Your task to perform on an android device: Go to location settings Image 0: 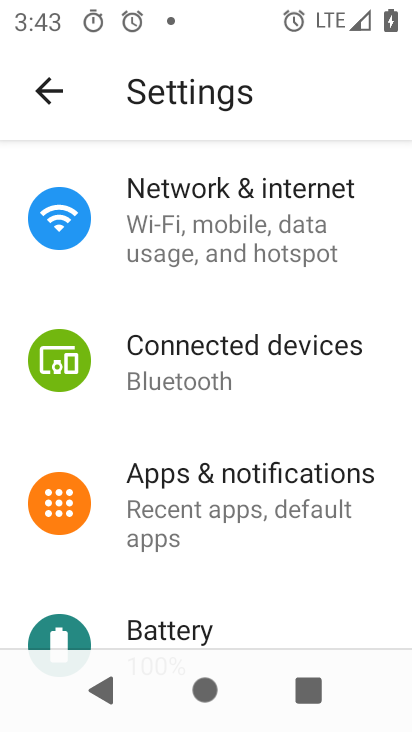
Step 0: drag from (331, 554) to (340, 140)
Your task to perform on an android device: Go to location settings Image 1: 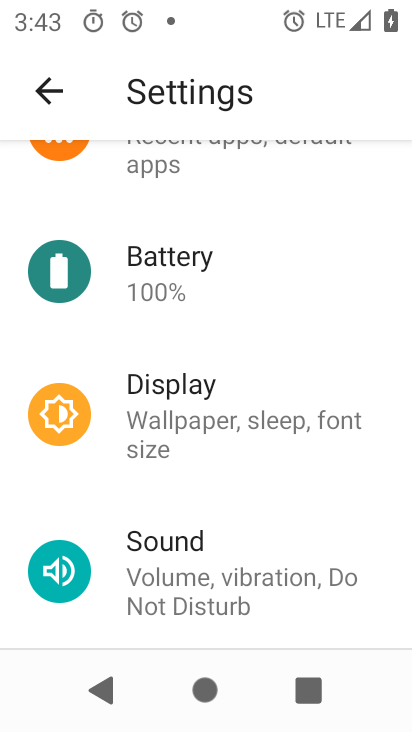
Step 1: drag from (334, 480) to (326, 228)
Your task to perform on an android device: Go to location settings Image 2: 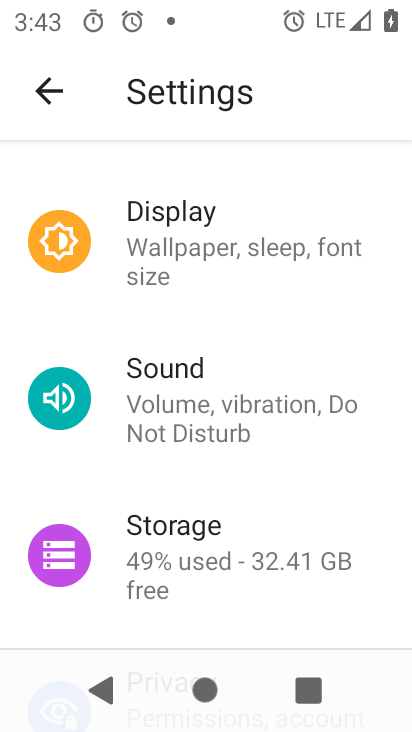
Step 2: drag from (365, 468) to (359, 202)
Your task to perform on an android device: Go to location settings Image 3: 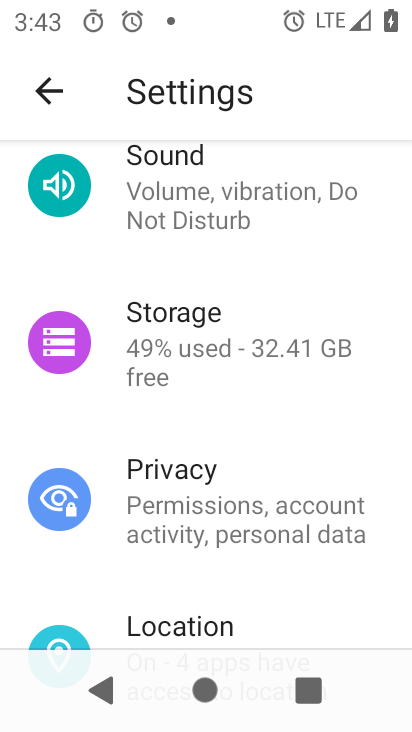
Step 3: drag from (297, 491) to (297, 273)
Your task to perform on an android device: Go to location settings Image 4: 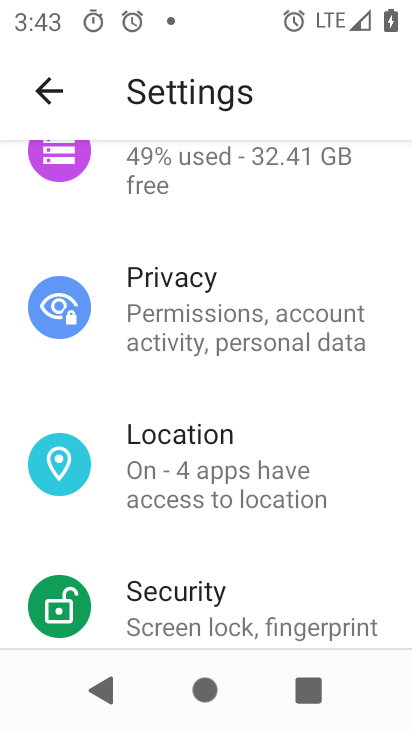
Step 4: click (224, 476)
Your task to perform on an android device: Go to location settings Image 5: 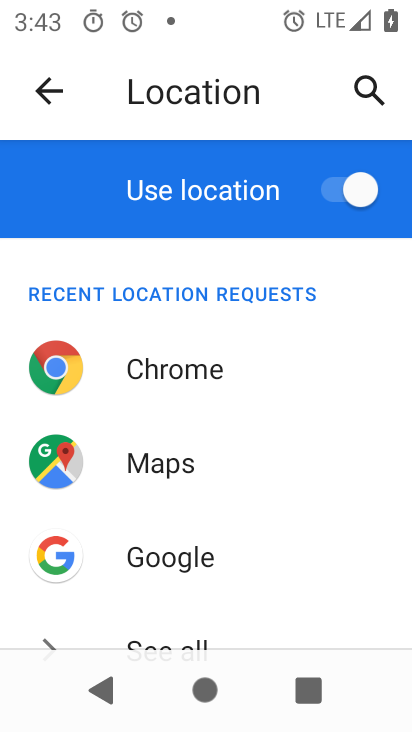
Step 5: task complete